Your task to perform on an android device: turn off smart reply in the gmail app Image 0: 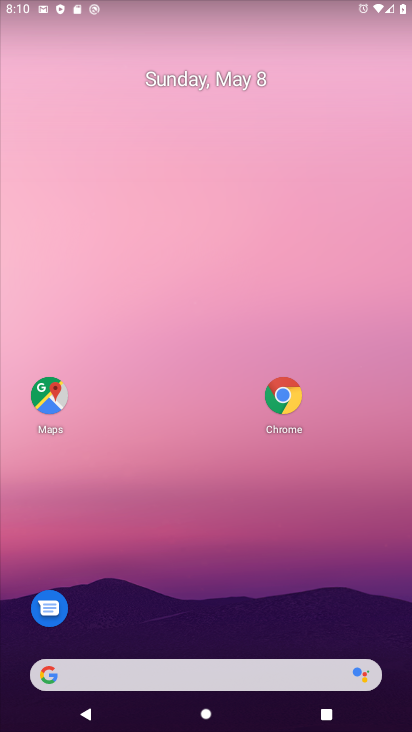
Step 0: drag from (160, 681) to (341, 141)
Your task to perform on an android device: turn off smart reply in the gmail app Image 1: 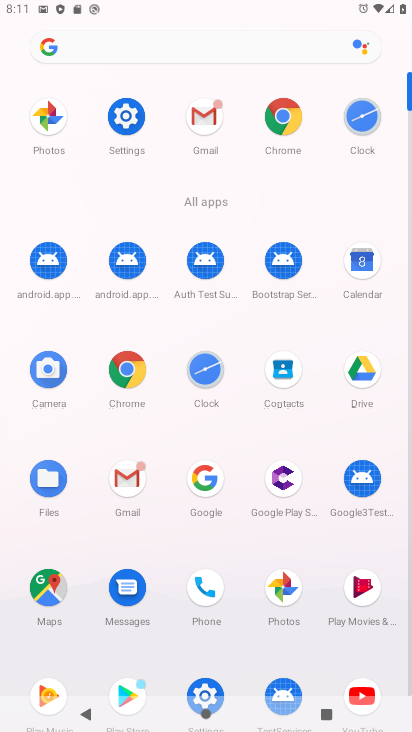
Step 1: click (208, 120)
Your task to perform on an android device: turn off smart reply in the gmail app Image 2: 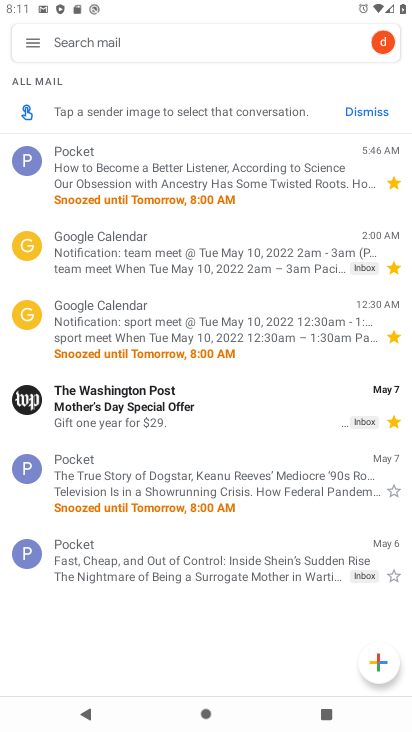
Step 2: click (31, 42)
Your task to perform on an android device: turn off smart reply in the gmail app Image 3: 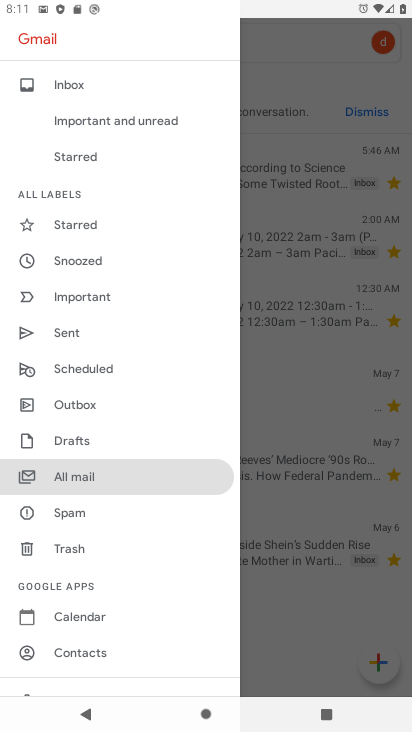
Step 3: drag from (144, 580) to (209, 210)
Your task to perform on an android device: turn off smart reply in the gmail app Image 4: 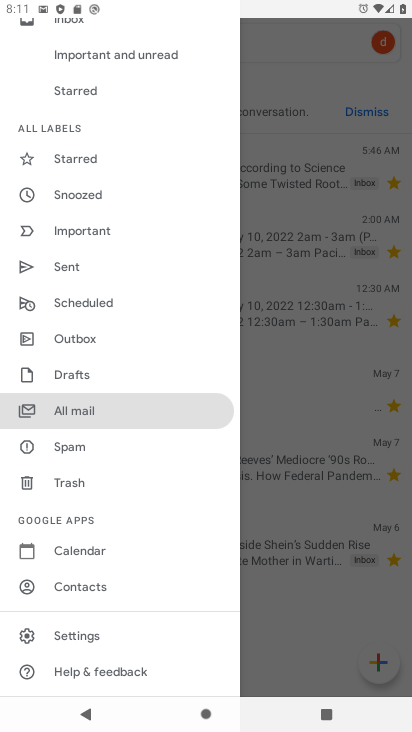
Step 4: click (66, 638)
Your task to perform on an android device: turn off smart reply in the gmail app Image 5: 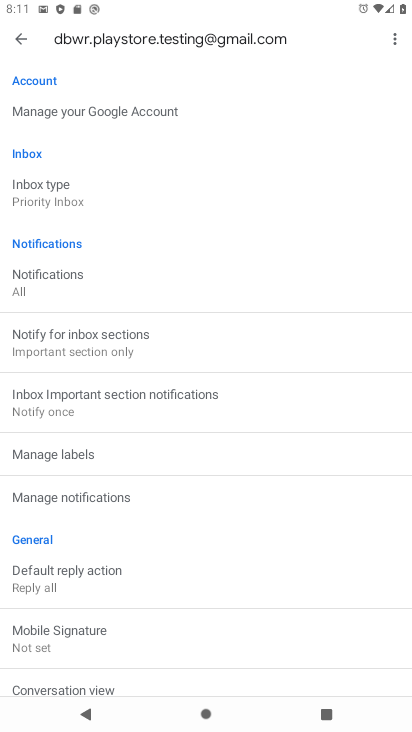
Step 5: drag from (203, 532) to (305, 153)
Your task to perform on an android device: turn off smart reply in the gmail app Image 6: 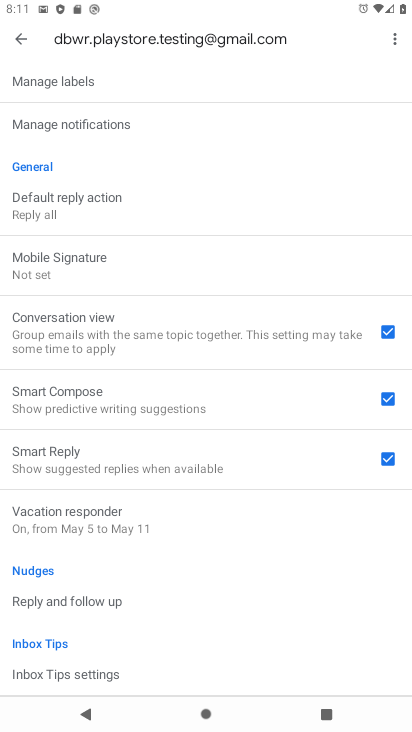
Step 6: click (389, 458)
Your task to perform on an android device: turn off smart reply in the gmail app Image 7: 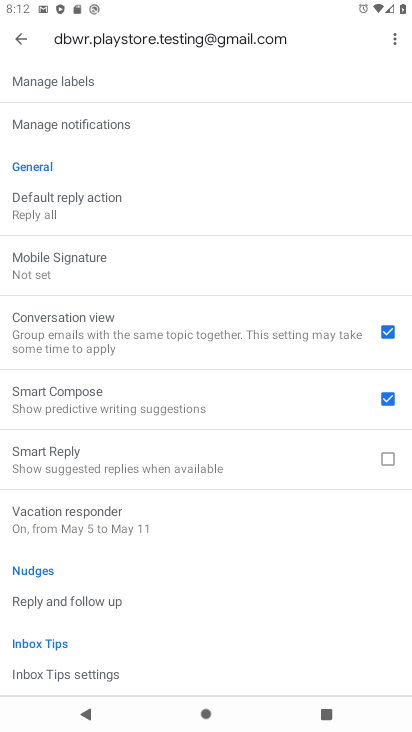
Step 7: task complete